Your task to perform on an android device: change alarm snooze length Image 0: 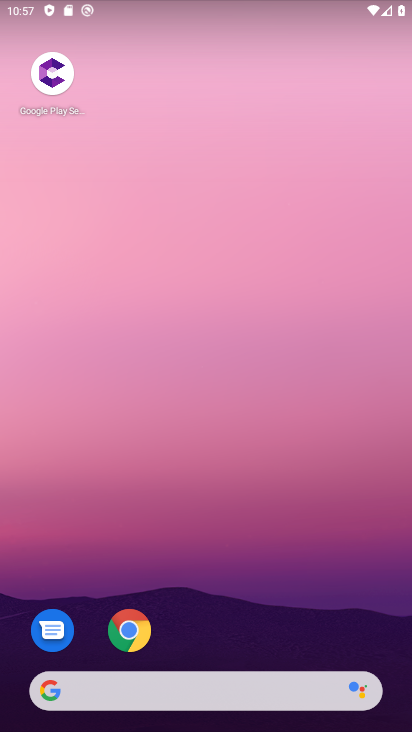
Step 0: drag from (231, 645) to (363, 154)
Your task to perform on an android device: change alarm snooze length Image 1: 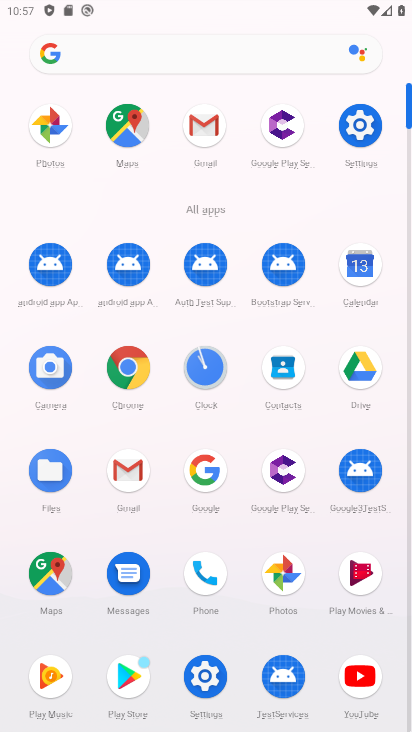
Step 1: click (211, 379)
Your task to perform on an android device: change alarm snooze length Image 2: 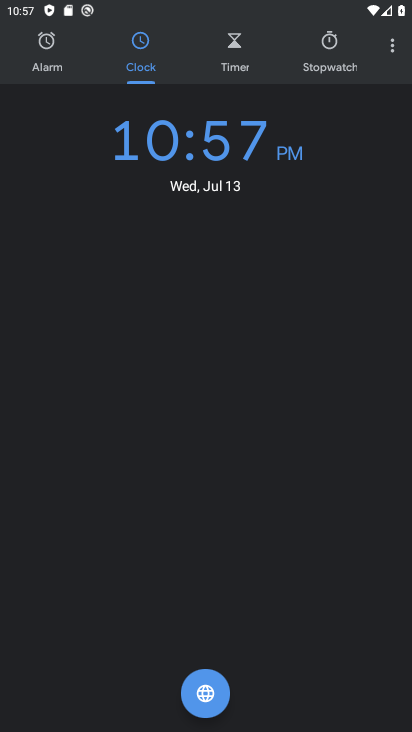
Step 2: click (388, 41)
Your task to perform on an android device: change alarm snooze length Image 3: 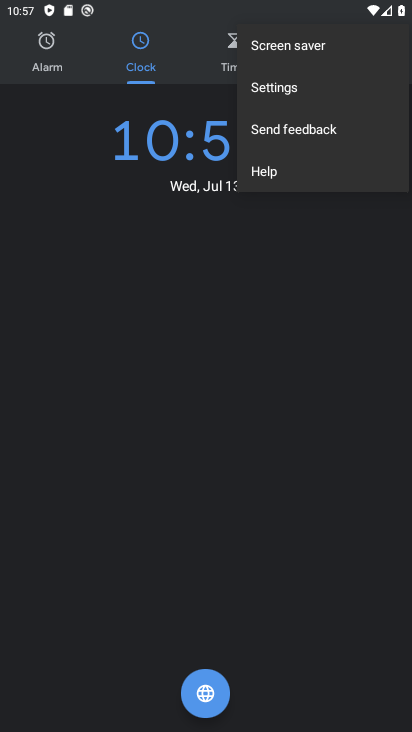
Step 3: click (337, 82)
Your task to perform on an android device: change alarm snooze length Image 4: 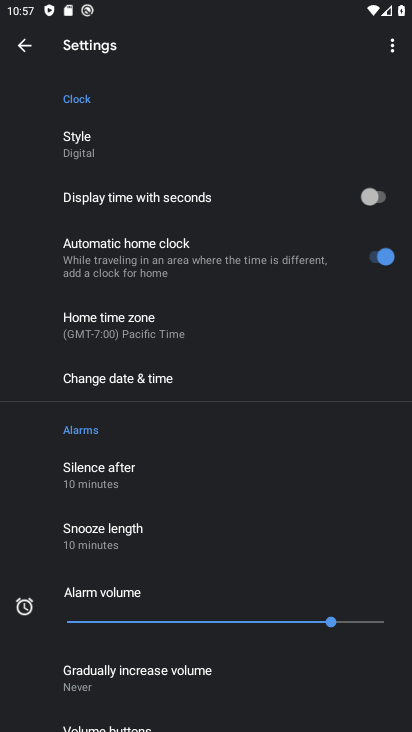
Step 4: drag from (151, 598) to (165, 436)
Your task to perform on an android device: change alarm snooze length Image 5: 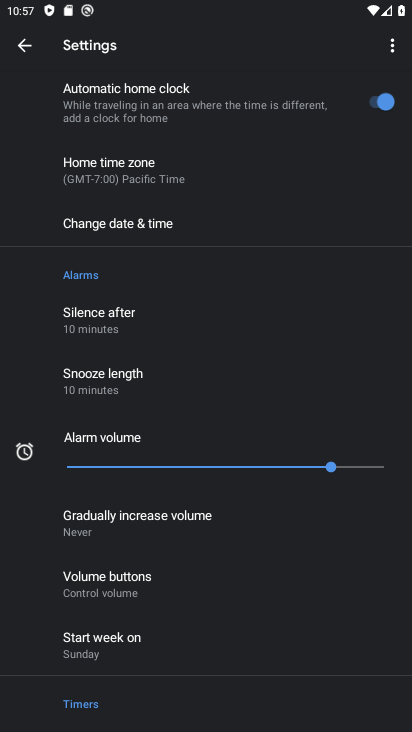
Step 5: click (163, 391)
Your task to perform on an android device: change alarm snooze length Image 6: 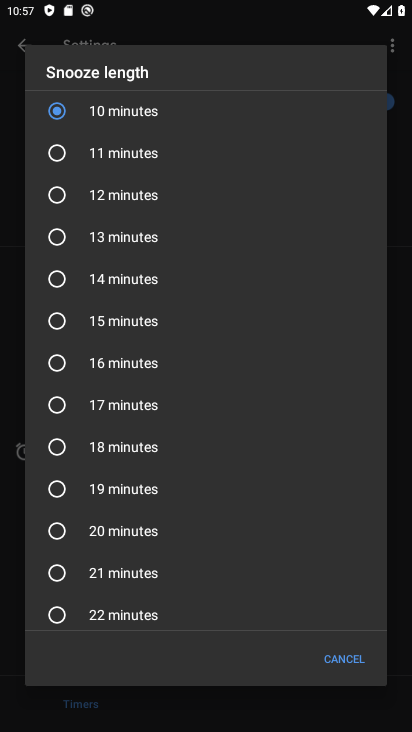
Step 6: click (147, 530)
Your task to perform on an android device: change alarm snooze length Image 7: 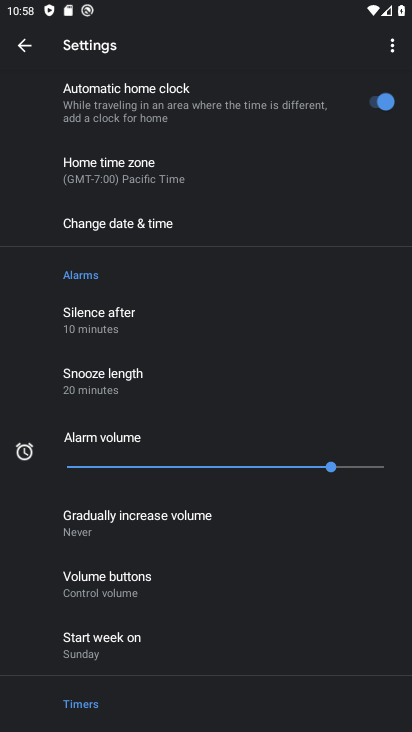
Step 7: task complete